Your task to perform on an android device: Open display settings Image 0: 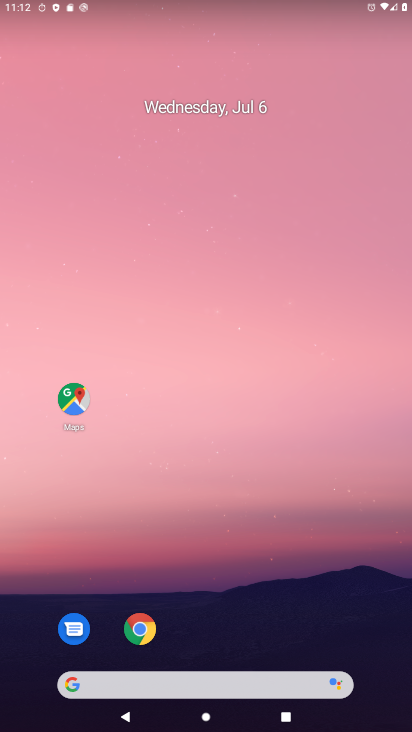
Step 0: drag from (246, 618) to (293, 103)
Your task to perform on an android device: Open display settings Image 1: 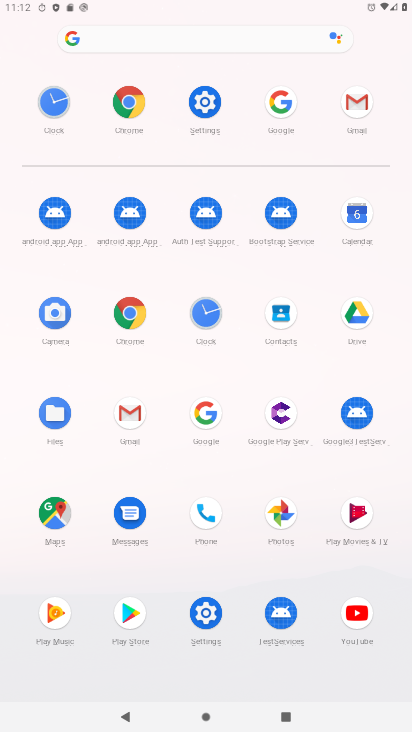
Step 1: click (203, 99)
Your task to perform on an android device: Open display settings Image 2: 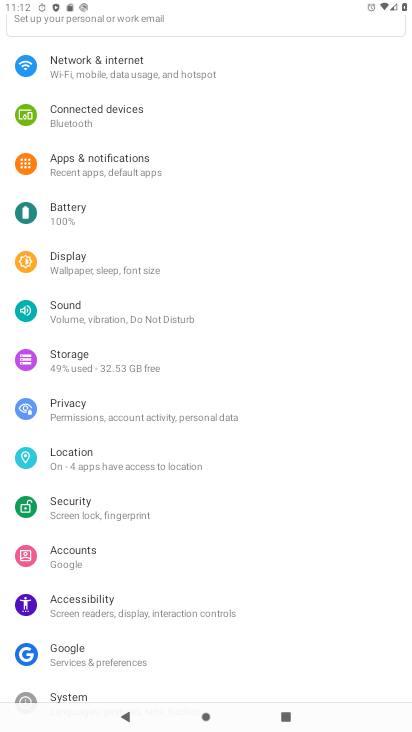
Step 2: click (87, 275)
Your task to perform on an android device: Open display settings Image 3: 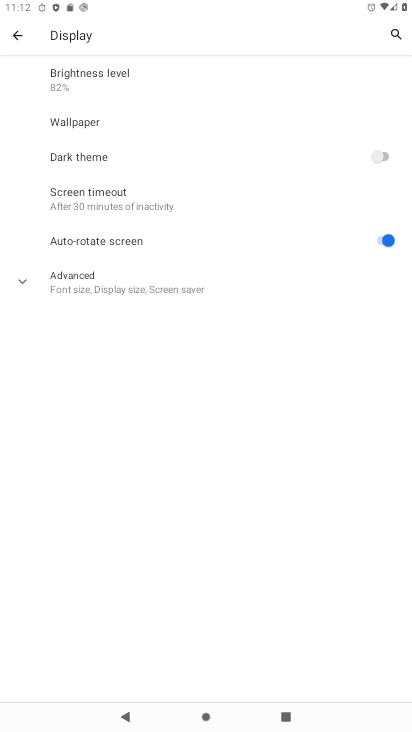
Step 3: task complete